Your task to perform on an android device: change the clock display to show seconds Image 0: 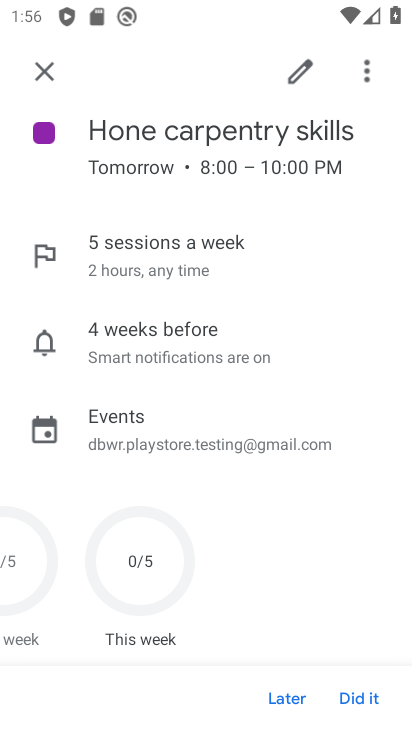
Step 0: press home button
Your task to perform on an android device: change the clock display to show seconds Image 1: 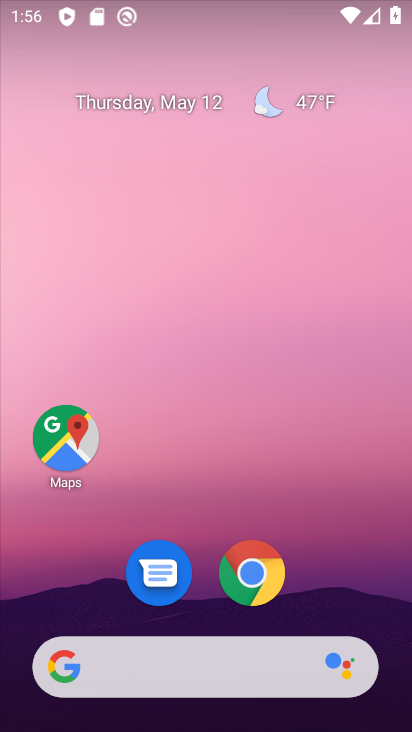
Step 1: press home button
Your task to perform on an android device: change the clock display to show seconds Image 2: 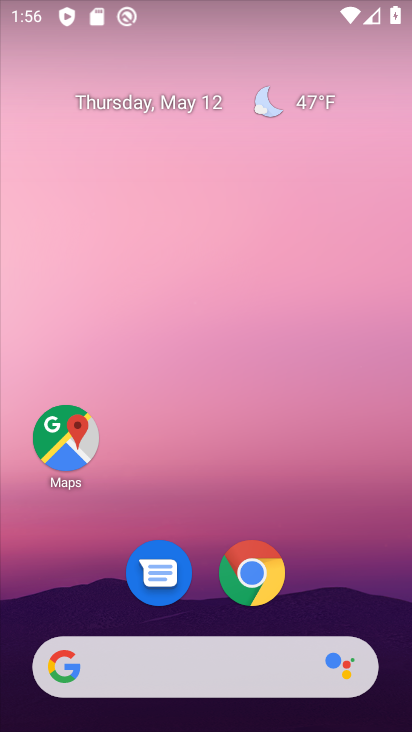
Step 2: press home button
Your task to perform on an android device: change the clock display to show seconds Image 3: 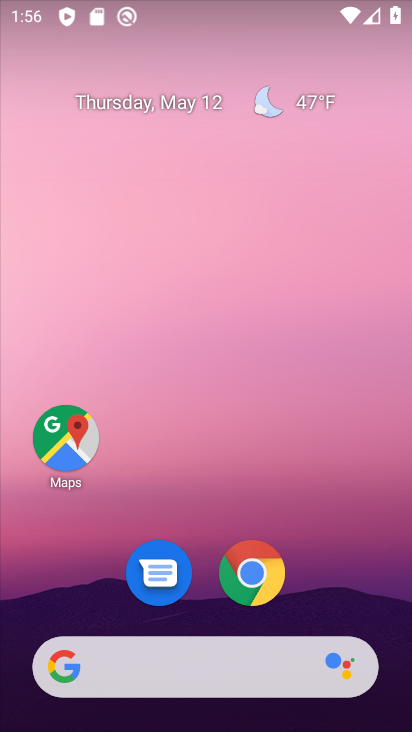
Step 3: drag from (201, 618) to (332, 69)
Your task to perform on an android device: change the clock display to show seconds Image 4: 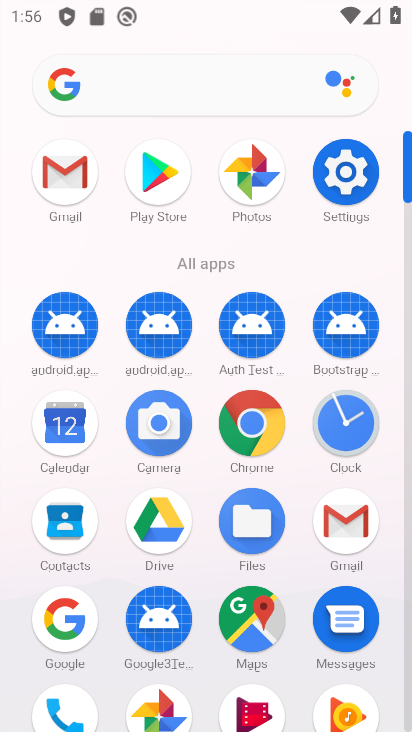
Step 4: click (338, 435)
Your task to perform on an android device: change the clock display to show seconds Image 5: 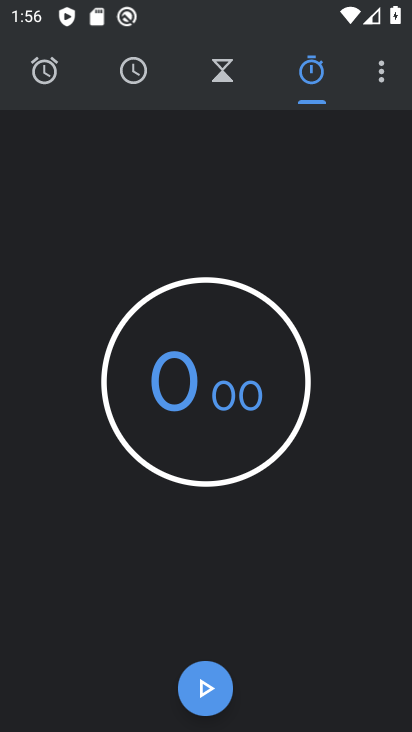
Step 5: click (398, 76)
Your task to perform on an android device: change the clock display to show seconds Image 6: 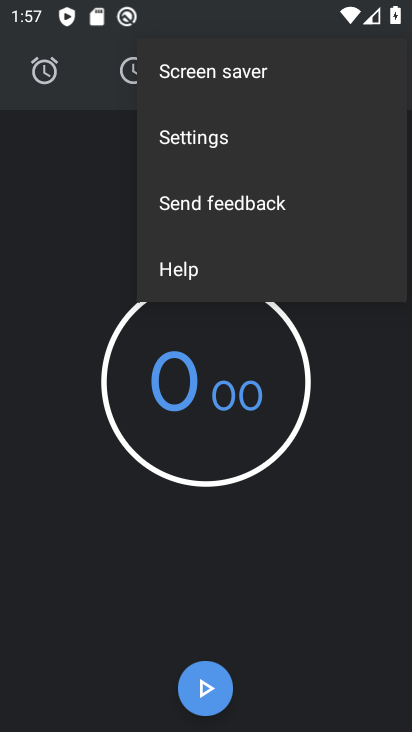
Step 6: click (259, 161)
Your task to perform on an android device: change the clock display to show seconds Image 7: 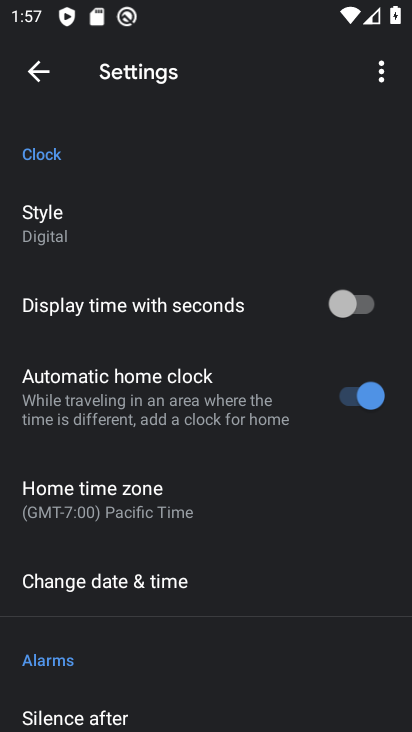
Step 7: click (370, 308)
Your task to perform on an android device: change the clock display to show seconds Image 8: 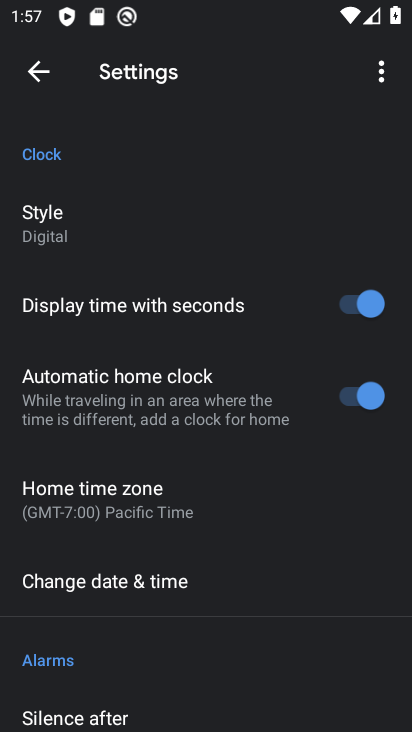
Step 8: task complete